Your task to perform on an android device: Go to calendar. Show me events next week Image 0: 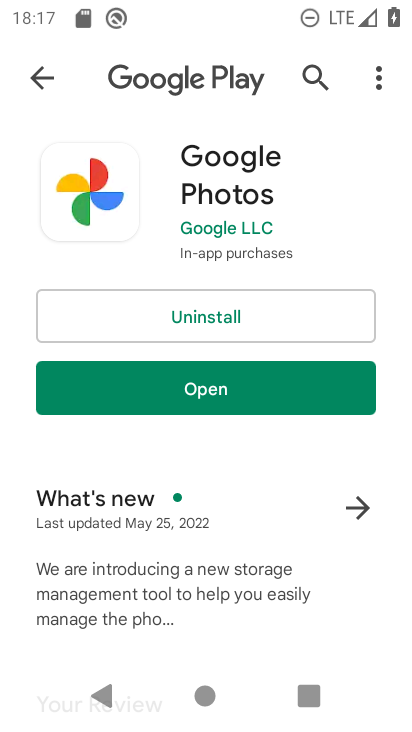
Step 0: press home button
Your task to perform on an android device: Go to calendar. Show me events next week Image 1: 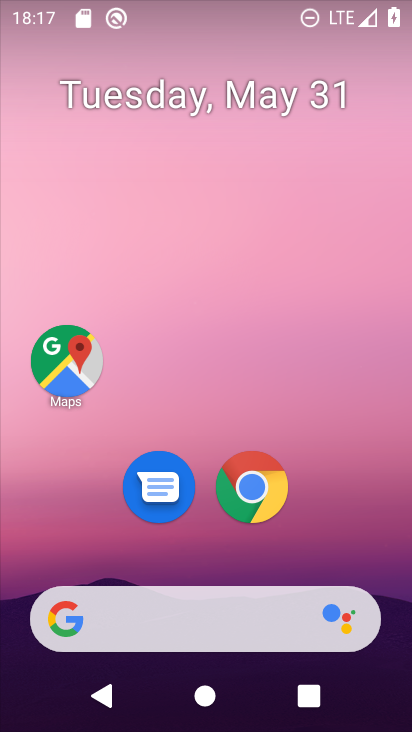
Step 1: drag from (341, 537) to (226, 163)
Your task to perform on an android device: Go to calendar. Show me events next week Image 2: 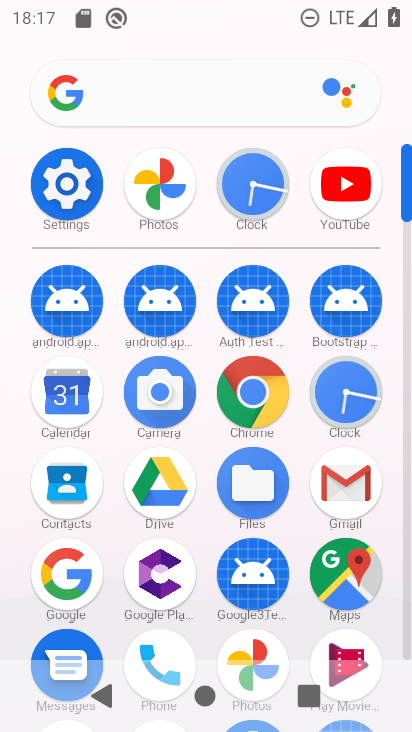
Step 2: click (56, 402)
Your task to perform on an android device: Go to calendar. Show me events next week Image 3: 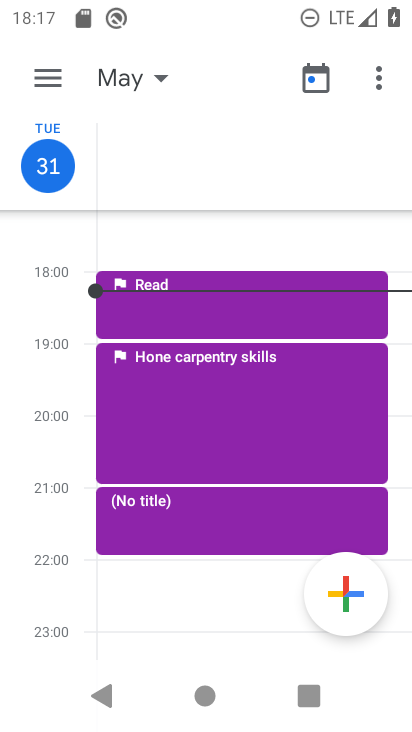
Step 3: click (162, 77)
Your task to perform on an android device: Go to calendar. Show me events next week Image 4: 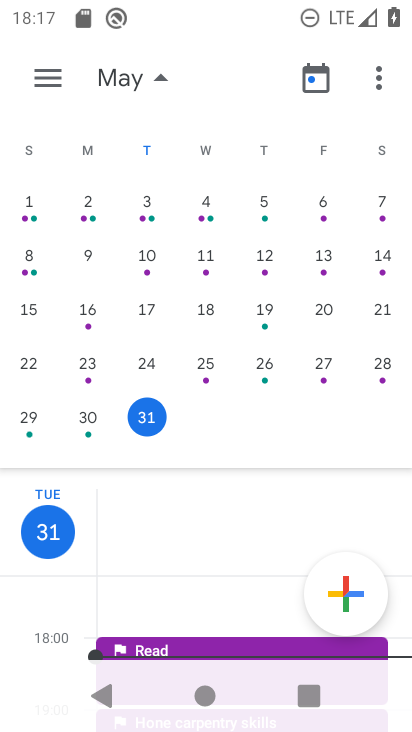
Step 4: drag from (332, 294) to (0, 309)
Your task to perform on an android device: Go to calendar. Show me events next week Image 5: 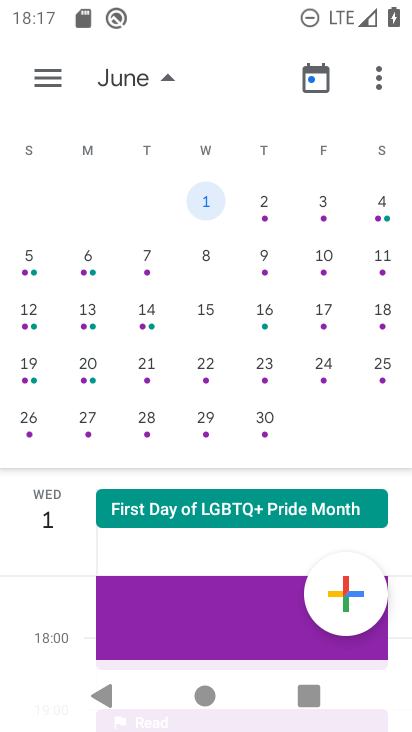
Step 5: click (49, 78)
Your task to perform on an android device: Go to calendar. Show me events next week Image 6: 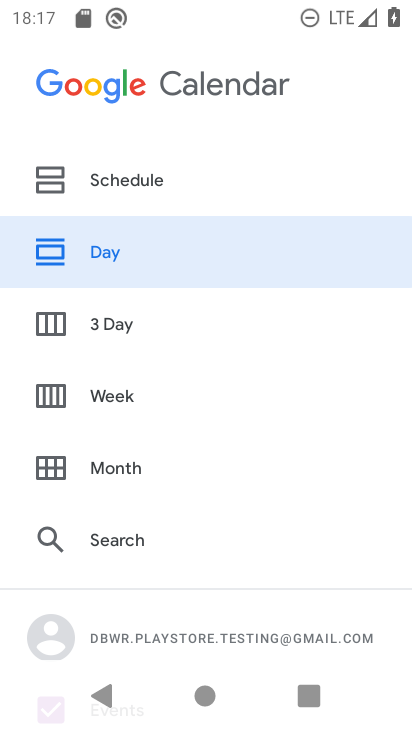
Step 6: click (104, 390)
Your task to perform on an android device: Go to calendar. Show me events next week Image 7: 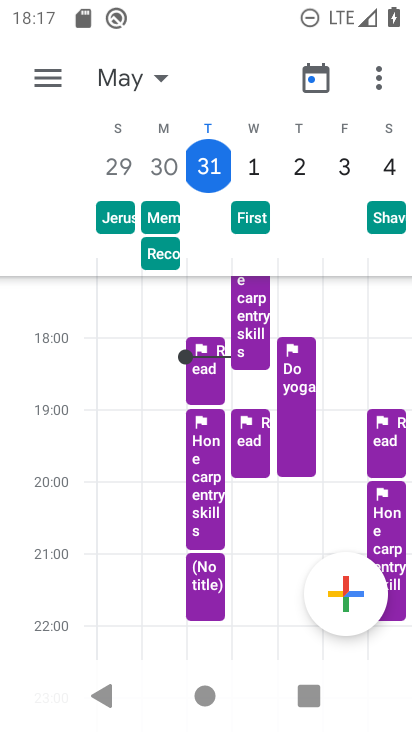
Step 7: click (160, 79)
Your task to perform on an android device: Go to calendar. Show me events next week Image 8: 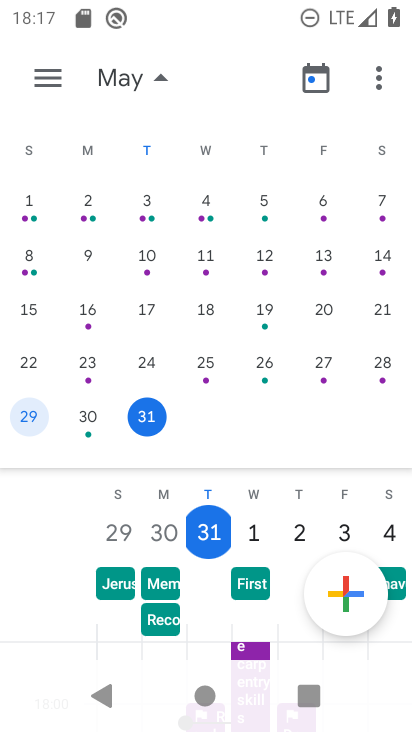
Step 8: drag from (343, 269) to (0, 267)
Your task to perform on an android device: Go to calendar. Show me events next week Image 9: 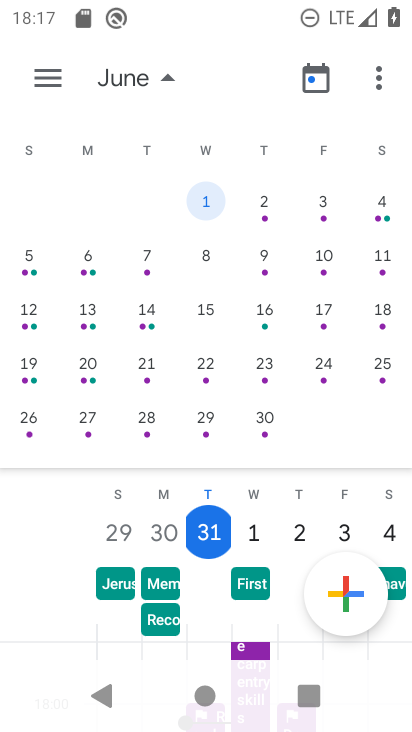
Step 9: click (204, 198)
Your task to perform on an android device: Go to calendar. Show me events next week Image 10: 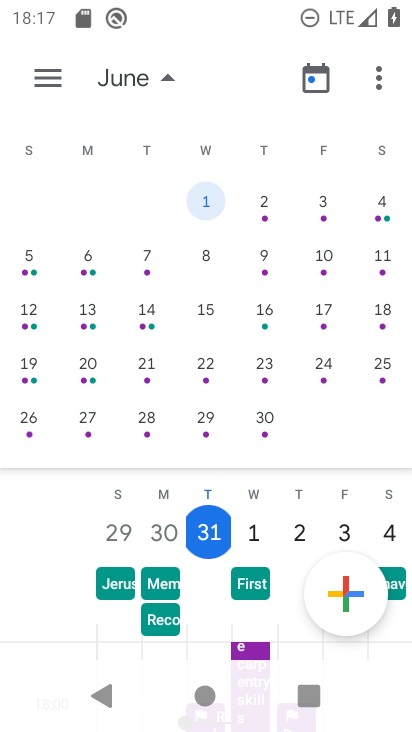
Step 10: task complete